Your task to perform on an android device: find snoozed emails in the gmail app Image 0: 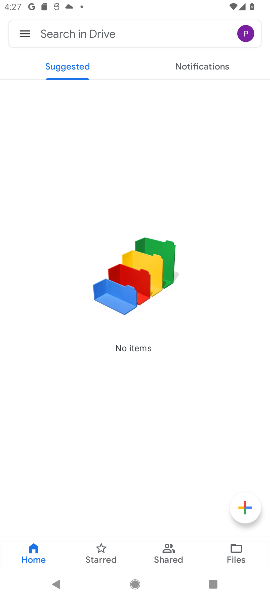
Step 0: press back button
Your task to perform on an android device: find snoozed emails in the gmail app Image 1: 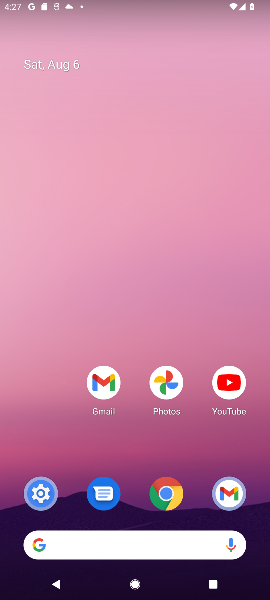
Step 1: drag from (149, 526) to (126, 260)
Your task to perform on an android device: find snoozed emails in the gmail app Image 2: 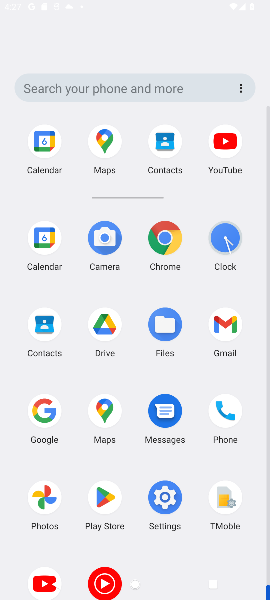
Step 2: drag from (159, 443) to (159, 221)
Your task to perform on an android device: find snoozed emails in the gmail app Image 3: 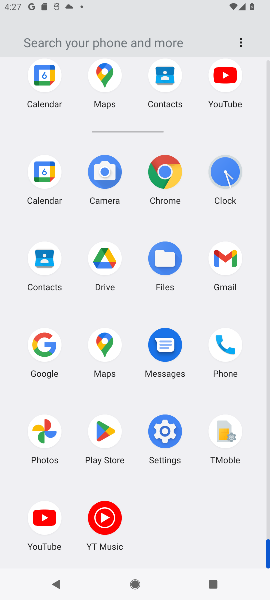
Step 3: click (222, 258)
Your task to perform on an android device: find snoozed emails in the gmail app Image 4: 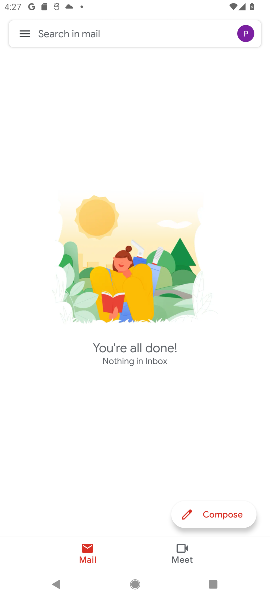
Step 4: click (18, 35)
Your task to perform on an android device: find snoozed emails in the gmail app Image 5: 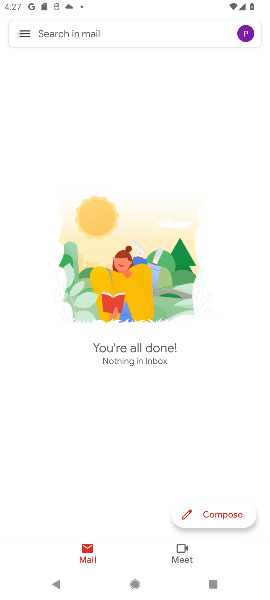
Step 5: click (18, 35)
Your task to perform on an android device: find snoozed emails in the gmail app Image 6: 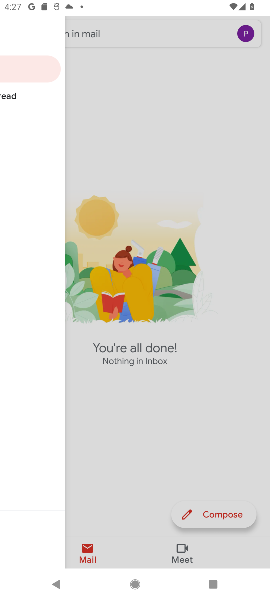
Step 6: click (18, 36)
Your task to perform on an android device: find snoozed emails in the gmail app Image 7: 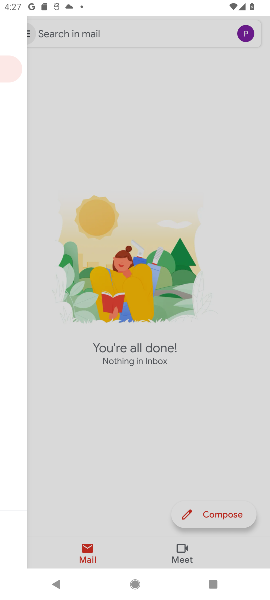
Step 7: click (18, 37)
Your task to perform on an android device: find snoozed emails in the gmail app Image 8: 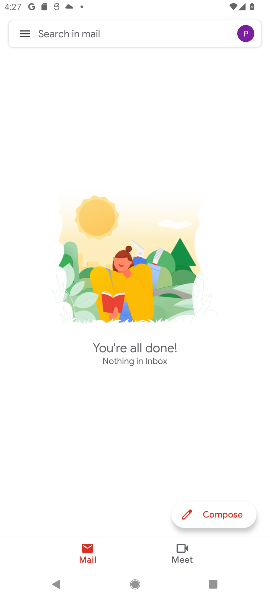
Step 8: drag from (28, 30) to (110, 405)
Your task to perform on an android device: find snoozed emails in the gmail app Image 9: 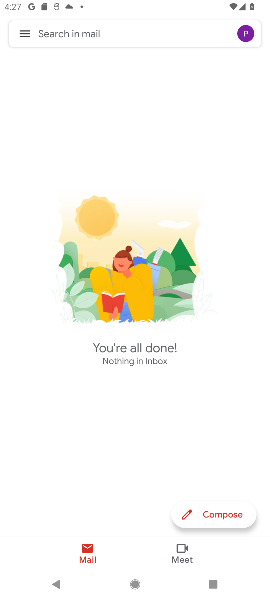
Step 9: click (26, 29)
Your task to perform on an android device: find snoozed emails in the gmail app Image 10: 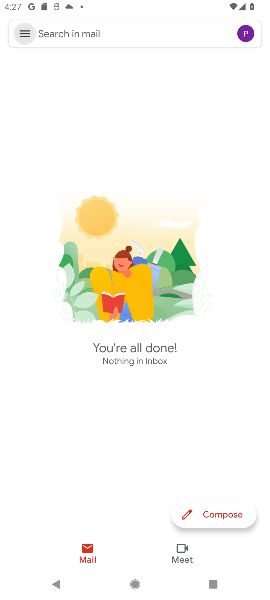
Step 10: click (27, 29)
Your task to perform on an android device: find snoozed emails in the gmail app Image 11: 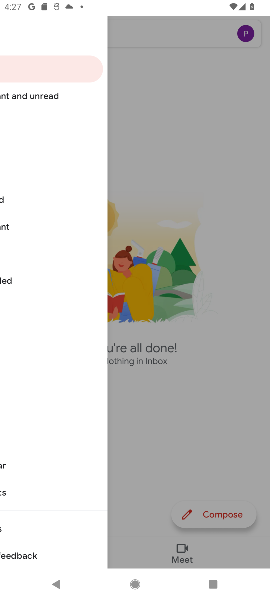
Step 11: click (28, 37)
Your task to perform on an android device: find snoozed emails in the gmail app Image 12: 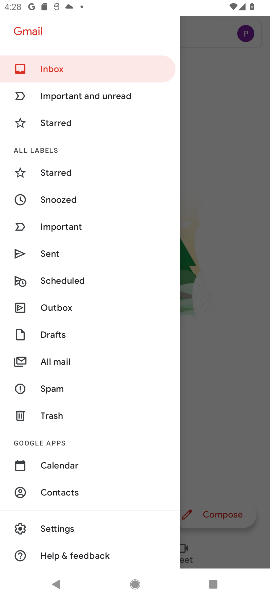
Step 12: click (58, 198)
Your task to perform on an android device: find snoozed emails in the gmail app Image 13: 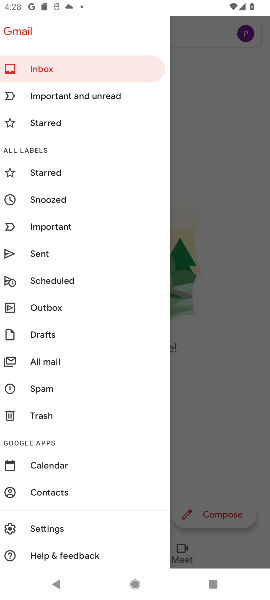
Step 13: click (57, 198)
Your task to perform on an android device: find snoozed emails in the gmail app Image 14: 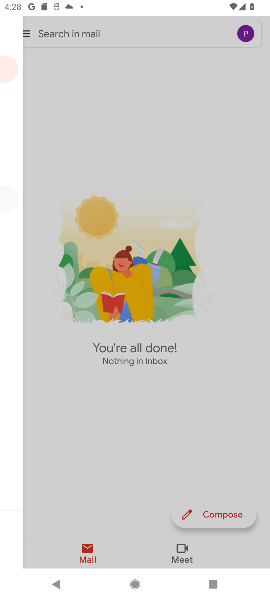
Step 14: click (56, 198)
Your task to perform on an android device: find snoozed emails in the gmail app Image 15: 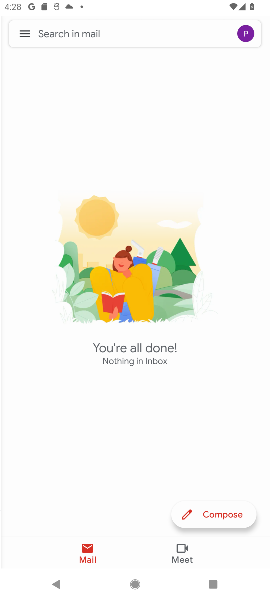
Step 15: click (56, 199)
Your task to perform on an android device: find snoozed emails in the gmail app Image 16: 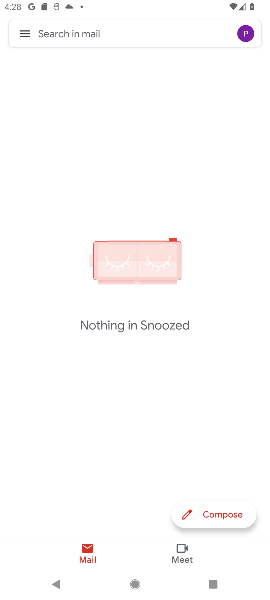
Step 16: task complete